Your task to perform on an android device: Open the phone app and click the voicemail tab. Image 0: 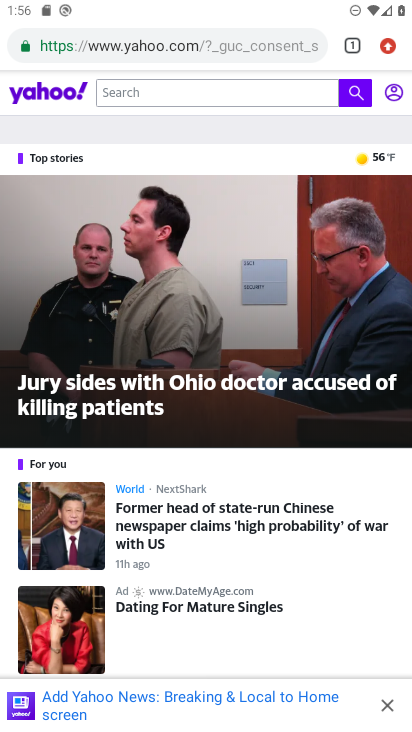
Step 0: press home button
Your task to perform on an android device: Open the phone app and click the voicemail tab. Image 1: 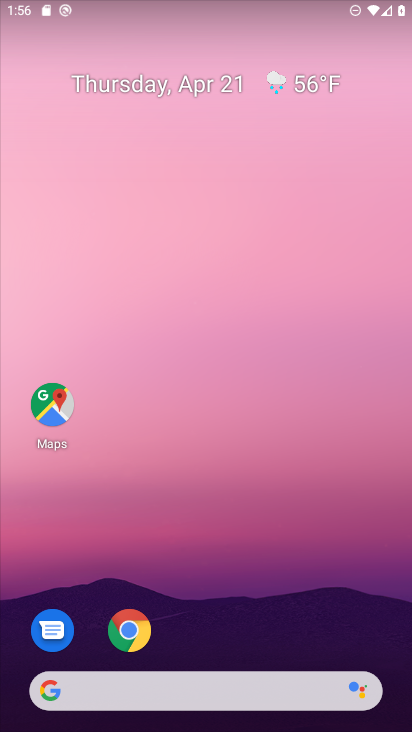
Step 1: drag from (200, 689) to (144, 52)
Your task to perform on an android device: Open the phone app and click the voicemail tab. Image 2: 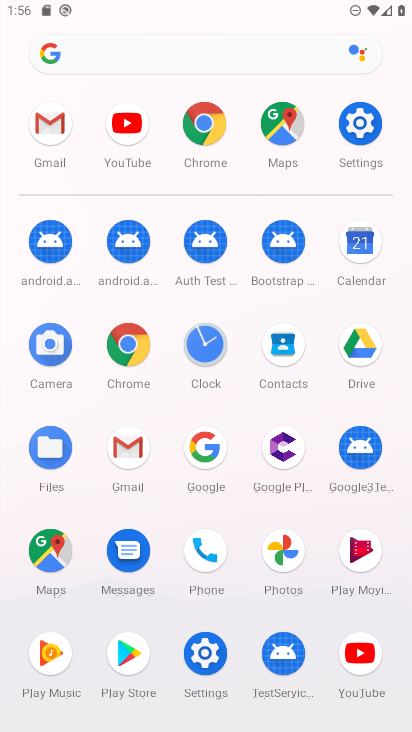
Step 2: click (211, 537)
Your task to perform on an android device: Open the phone app and click the voicemail tab. Image 3: 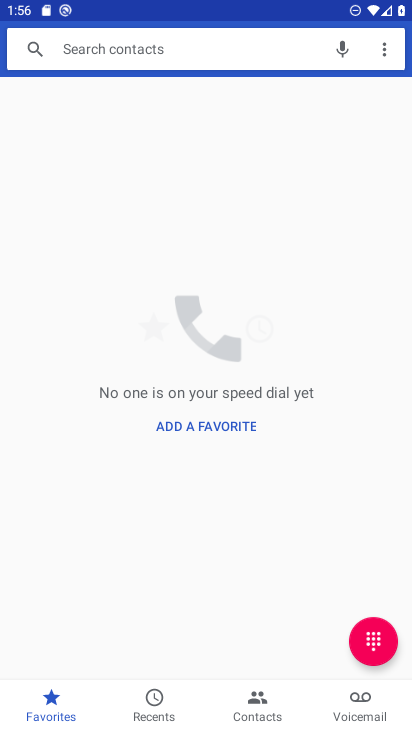
Step 3: click (355, 709)
Your task to perform on an android device: Open the phone app and click the voicemail tab. Image 4: 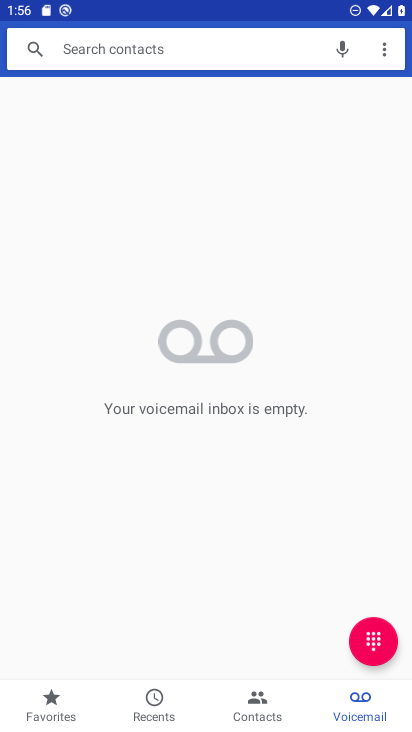
Step 4: task complete